Your task to perform on an android device: turn on data saver in the chrome app Image 0: 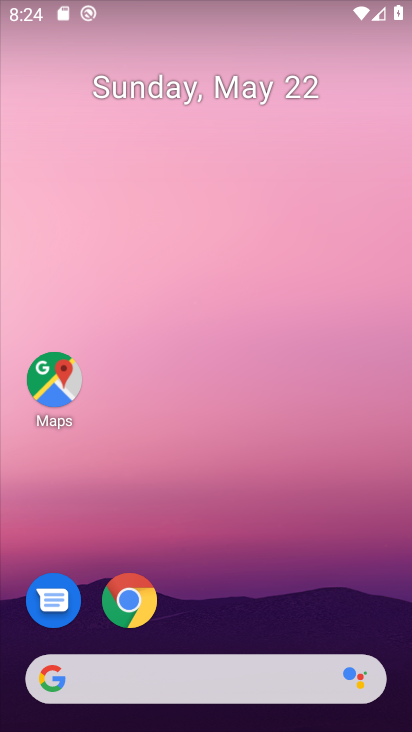
Step 0: click (128, 603)
Your task to perform on an android device: turn on data saver in the chrome app Image 1: 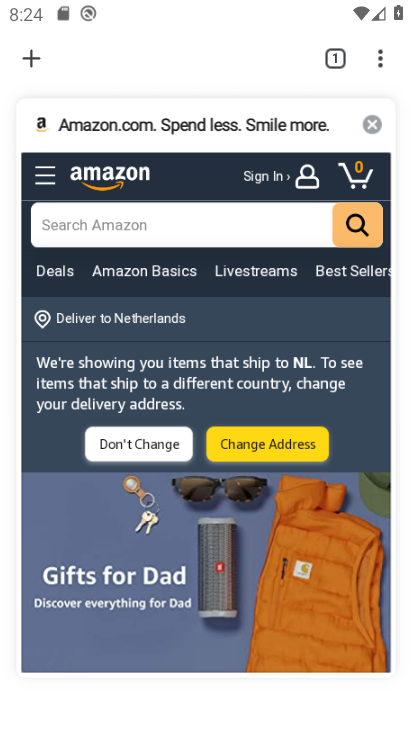
Step 1: click (383, 57)
Your task to perform on an android device: turn on data saver in the chrome app Image 2: 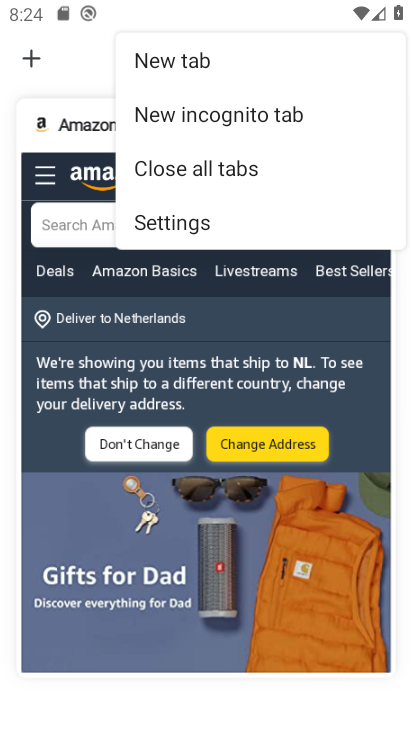
Step 2: click (237, 220)
Your task to perform on an android device: turn on data saver in the chrome app Image 3: 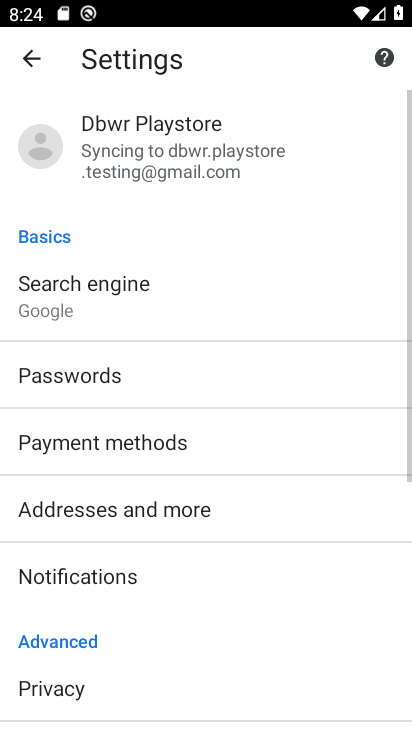
Step 3: drag from (223, 615) to (274, 322)
Your task to perform on an android device: turn on data saver in the chrome app Image 4: 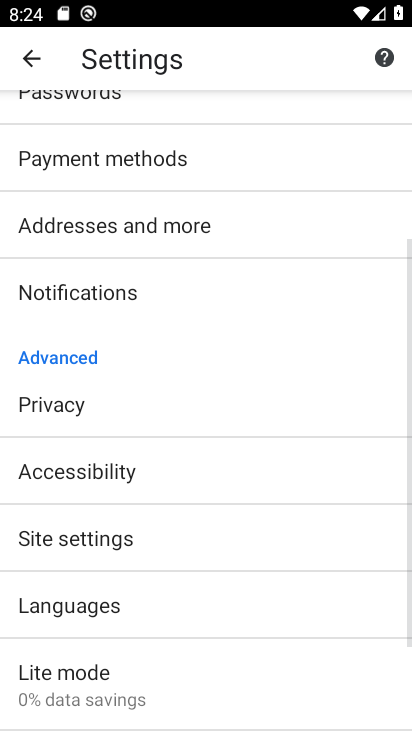
Step 4: click (114, 686)
Your task to perform on an android device: turn on data saver in the chrome app Image 5: 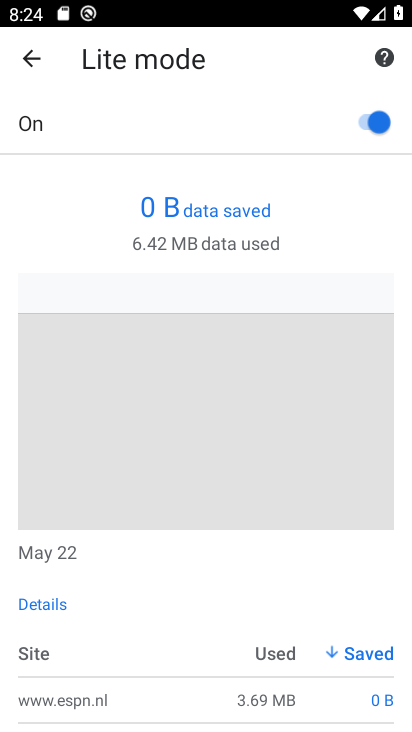
Step 5: task complete